Your task to perform on an android device: Toggle the flashlight Image 0: 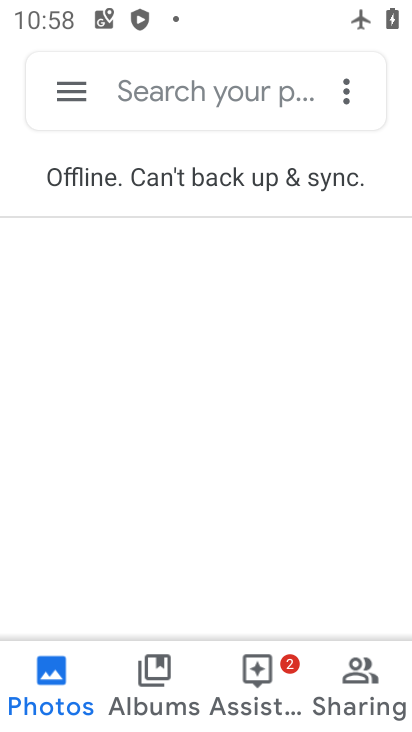
Step 0: click (82, 91)
Your task to perform on an android device: Toggle the flashlight Image 1: 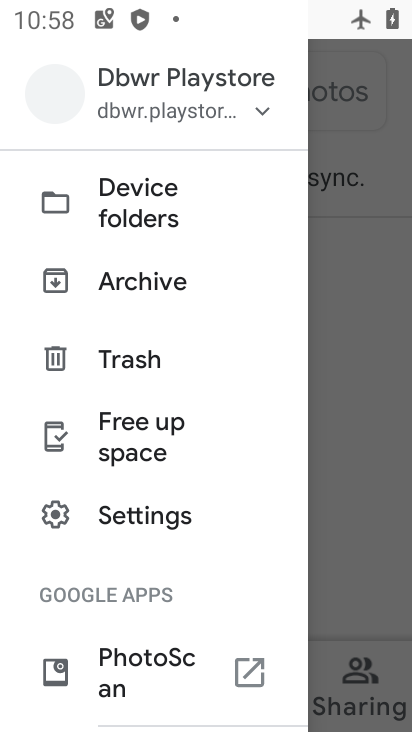
Step 1: press home button
Your task to perform on an android device: Toggle the flashlight Image 2: 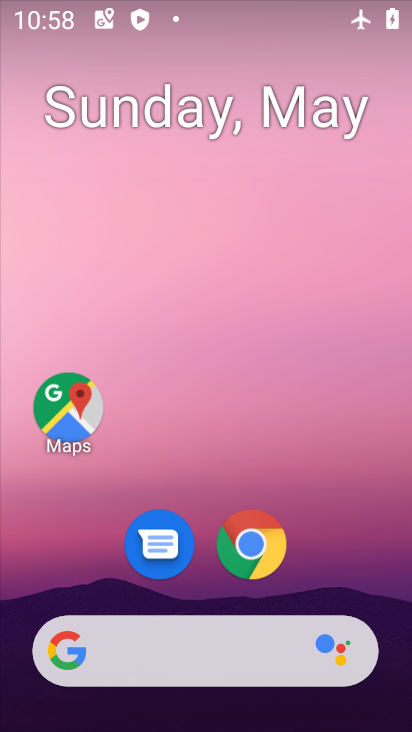
Step 2: drag from (306, 535) to (297, 216)
Your task to perform on an android device: Toggle the flashlight Image 3: 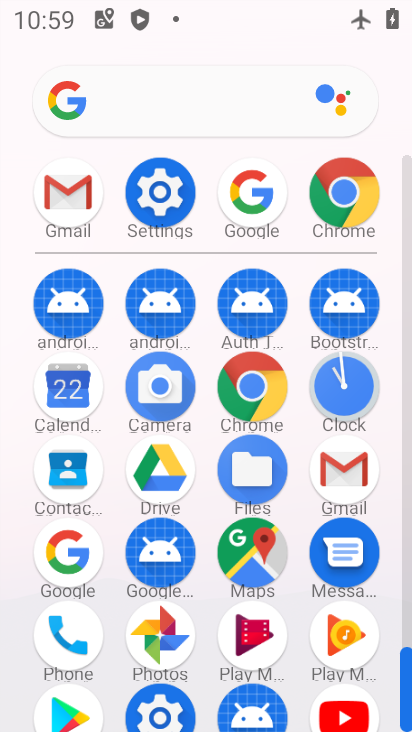
Step 3: click (145, 184)
Your task to perform on an android device: Toggle the flashlight Image 4: 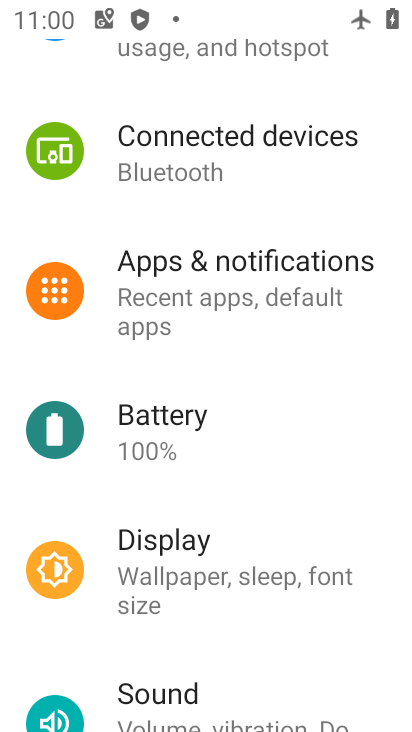
Step 4: task complete